Your task to perform on an android device: What's the weather going to be this weekend? Image 0: 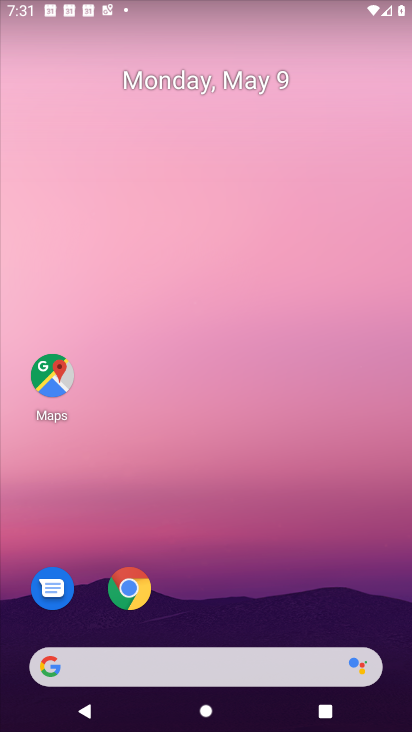
Step 0: click (54, 668)
Your task to perform on an android device: What's the weather going to be this weekend? Image 1: 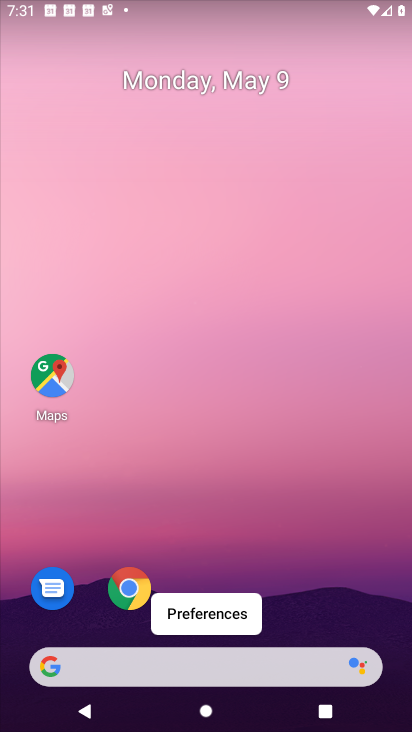
Step 1: click (48, 671)
Your task to perform on an android device: What's the weather going to be this weekend? Image 2: 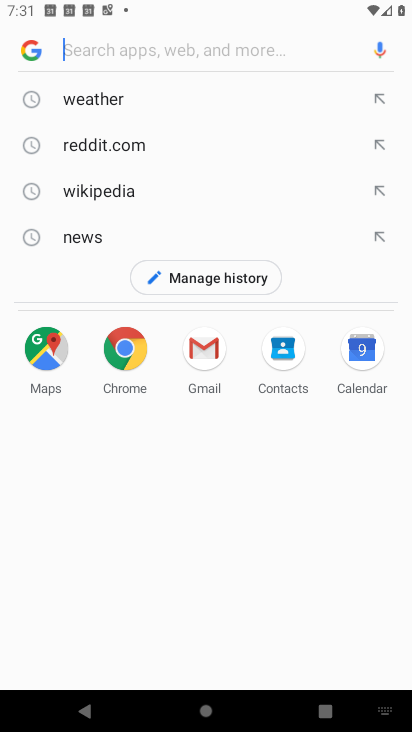
Step 2: click (124, 99)
Your task to perform on an android device: What's the weather going to be this weekend? Image 3: 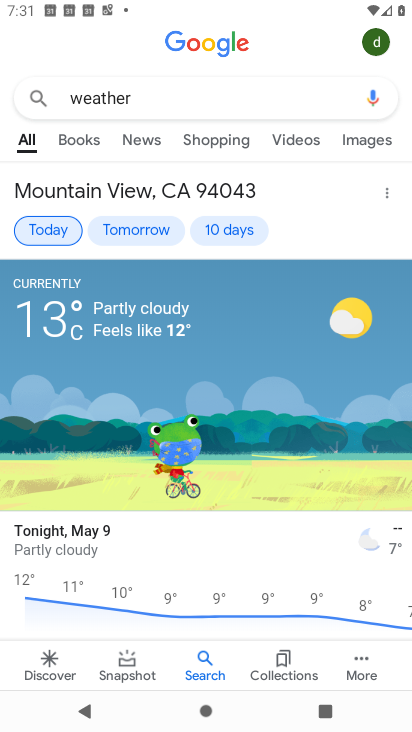
Step 3: click (232, 233)
Your task to perform on an android device: What's the weather going to be this weekend? Image 4: 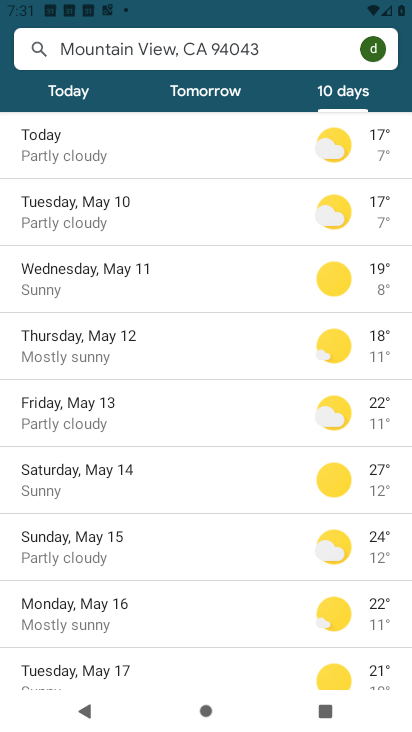
Step 4: click (102, 477)
Your task to perform on an android device: What's the weather going to be this weekend? Image 5: 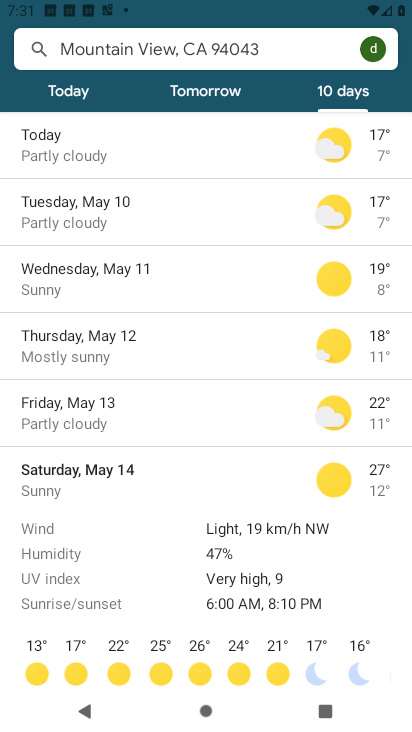
Step 5: task complete